Your task to perform on an android device: Clear the cart on bestbuy. Search for "macbook" on bestbuy, select the first entry, and add it to the cart. Image 0: 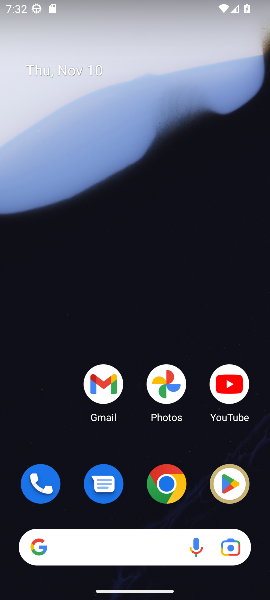
Step 0: click (165, 483)
Your task to perform on an android device: Clear the cart on bestbuy. Search for "macbook" on bestbuy, select the first entry, and add it to the cart. Image 1: 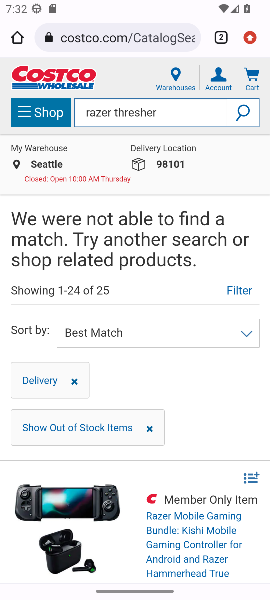
Step 1: click (120, 44)
Your task to perform on an android device: Clear the cart on bestbuy. Search for "macbook" on bestbuy, select the first entry, and add it to the cart. Image 2: 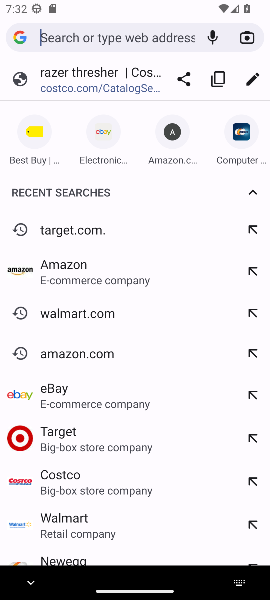
Step 2: click (33, 146)
Your task to perform on an android device: Clear the cart on bestbuy. Search for "macbook" on bestbuy, select the first entry, and add it to the cart. Image 3: 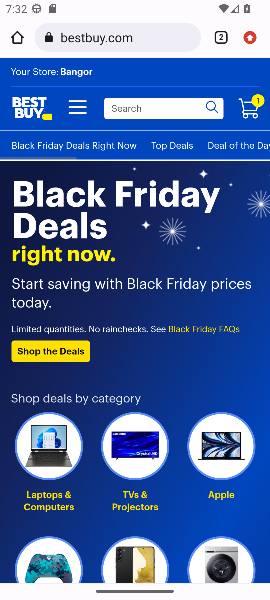
Step 3: click (254, 116)
Your task to perform on an android device: Clear the cart on bestbuy. Search for "macbook" on bestbuy, select the first entry, and add it to the cart. Image 4: 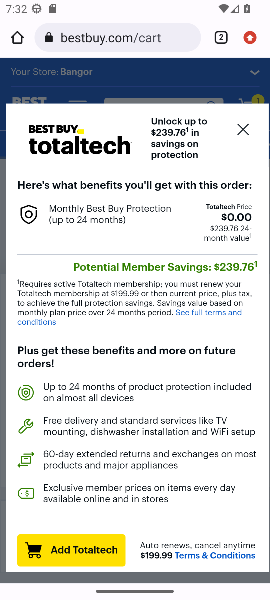
Step 4: click (245, 134)
Your task to perform on an android device: Clear the cart on bestbuy. Search for "macbook" on bestbuy, select the first entry, and add it to the cart. Image 5: 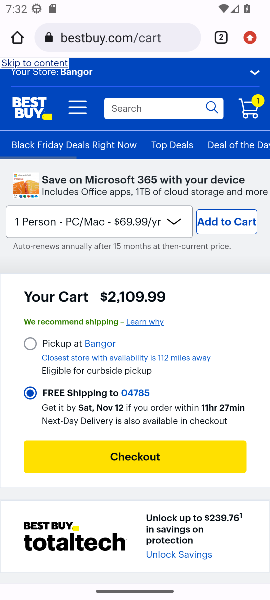
Step 5: drag from (123, 322) to (146, 142)
Your task to perform on an android device: Clear the cart on bestbuy. Search for "macbook" on bestbuy, select the first entry, and add it to the cart. Image 6: 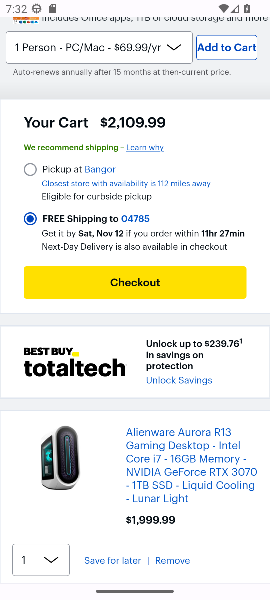
Step 6: drag from (109, 377) to (126, 185)
Your task to perform on an android device: Clear the cart on bestbuy. Search for "macbook" on bestbuy, select the first entry, and add it to the cart. Image 7: 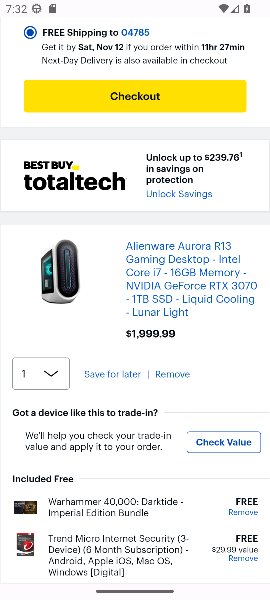
Step 7: click (172, 371)
Your task to perform on an android device: Clear the cart on bestbuy. Search for "macbook" on bestbuy, select the first entry, and add it to the cart. Image 8: 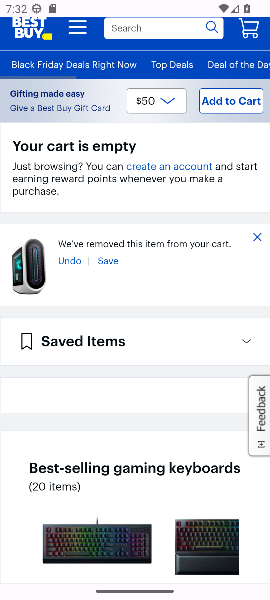
Step 8: click (162, 23)
Your task to perform on an android device: Clear the cart on bestbuy. Search for "macbook" on bestbuy, select the first entry, and add it to the cart. Image 9: 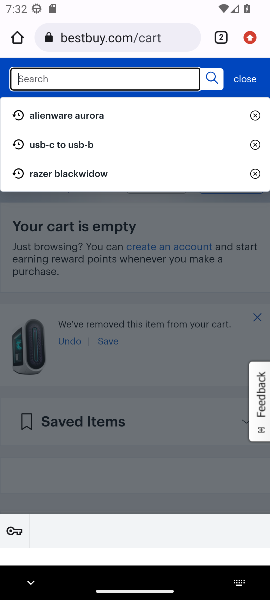
Step 9: type "macbook"
Your task to perform on an android device: Clear the cart on bestbuy. Search for "macbook" on bestbuy, select the first entry, and add it to the cart. Image 10: 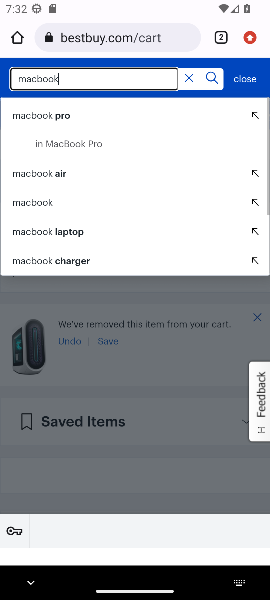
Step 10: click (32, 208)
Your task to perform on an android device: Clear the cart on bestbuy. Search for "macbook" on bestbuy, select the first entry, and add it to the cart. Image 11: 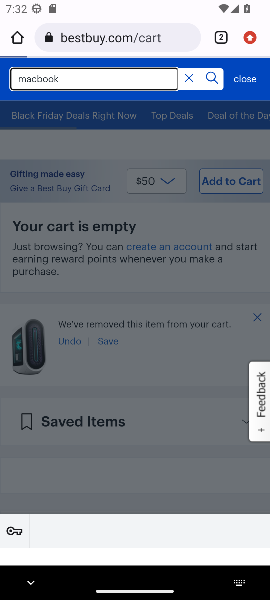
Step 11: click (210, 80)
Your task to perform on an android device: Clear the cart on bestbuy. Search for "macbook" on bestbuy, select the first entry, and add it to the cart. Image 12: 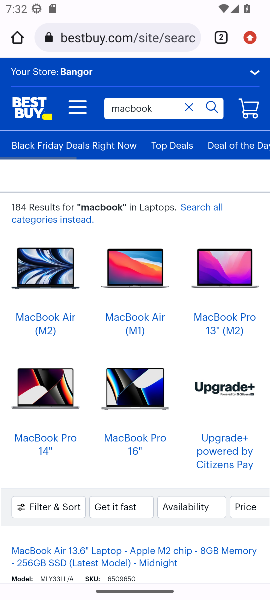
Step 12: drag from (153, 460) to (165, 203)
Your task to perform on an android device: Clear the cart on bestbuy. Search for "macbook" on bestbuy, select the first entry, and add it to the cart. Image 13: 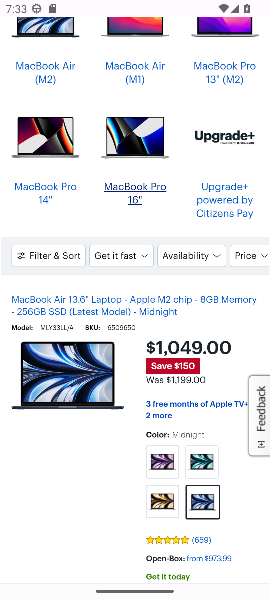
Step 13: drag from (152, 500) to (160, 386)
Your task to perform on an android device: Clear the cart on bestbuy. Search for "macbook" on bestbuy, select the first entry, and add it to the cart. Image 14: 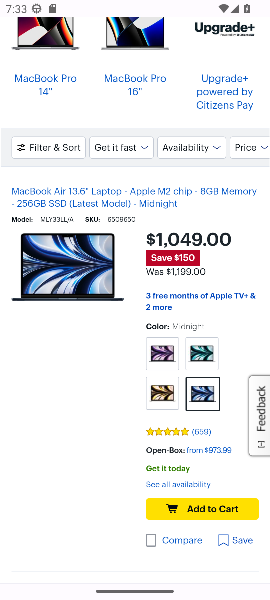
Step 14: click (188, 506)
Your task to perform on an android device: Clear the cart on bestbuy. Search for "macbook" on bestbuy, select the first entry, and add it to the cart. Image 15: 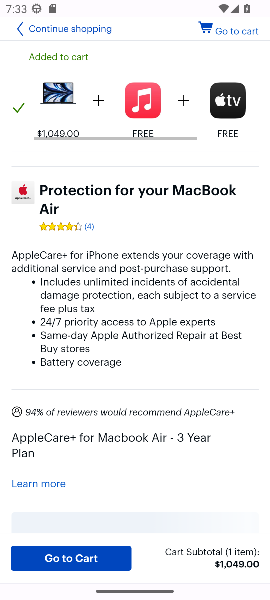
Step 15: task complete